Your task to perform on an android device: What's on my calendar tomorrow? Image 0: 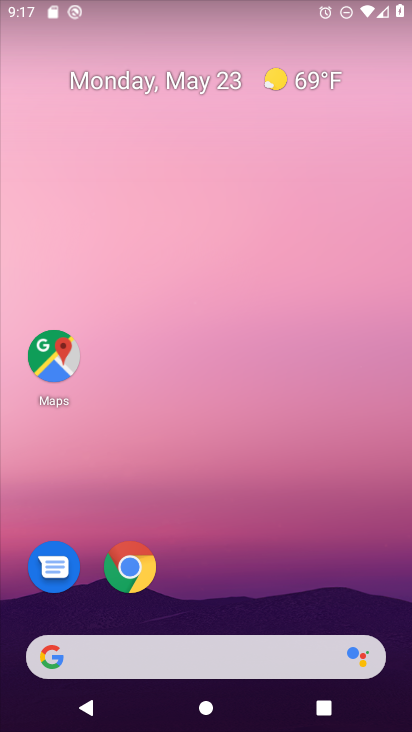
Step 0: drag from (222, 578) to (250, 342)
Your task to perform on an android device: What's on my calendar tomorrow? Image 1: 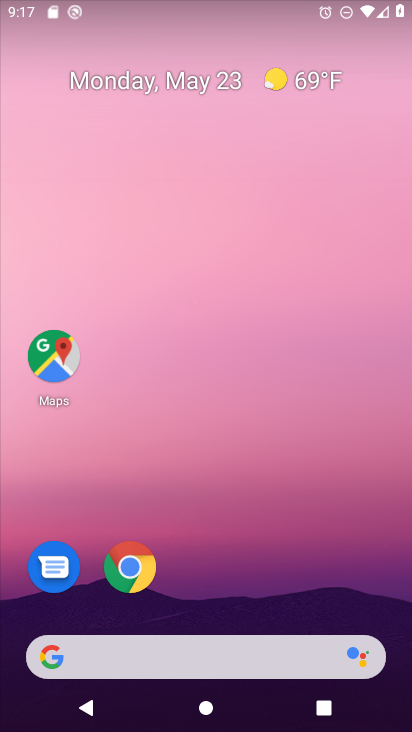
Step 1: drag from (236, 589) to (238, 0)
Your task to perform on an android device: What's on my calendar tomorrow? Image 2: 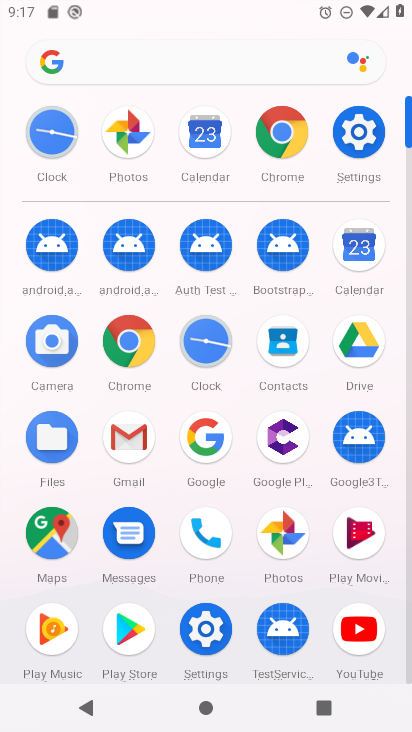
Step 2: click (375, 245)
Your task to perform on an android device: What's on my calendar tomorrow? Image 3: 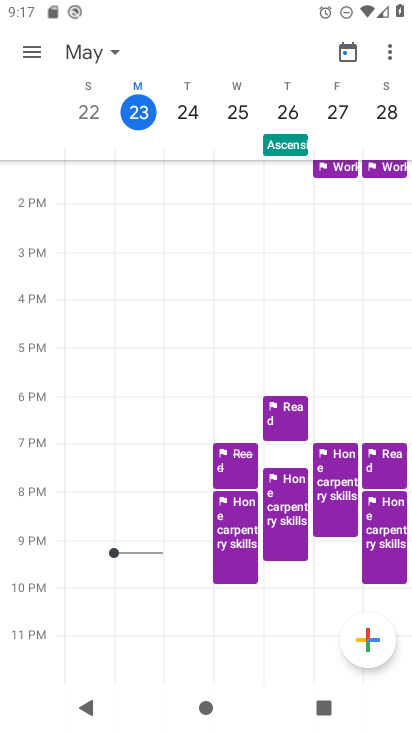
Step 3: click (35, 46)
Your task to perform on an android device: What's on my calendar tomorrow? Image 4: 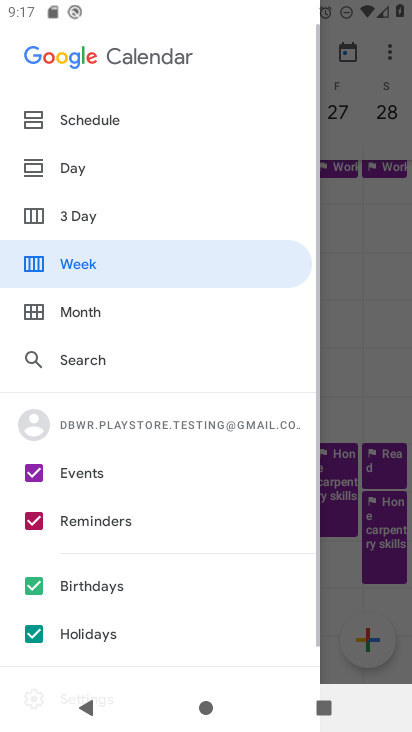
Step 4: click (92, 212)
Your task to perform on an android device: What's on my calendar tomorrow? Image 5: 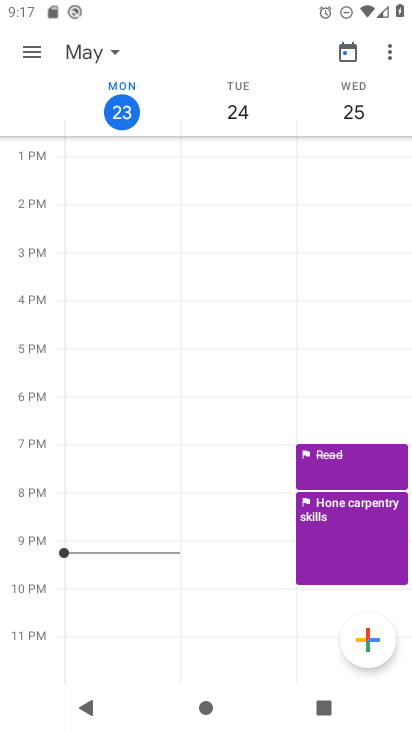
Step 5: task complete